Your task to perform on an android device: Turn off the flashlight Image 0: 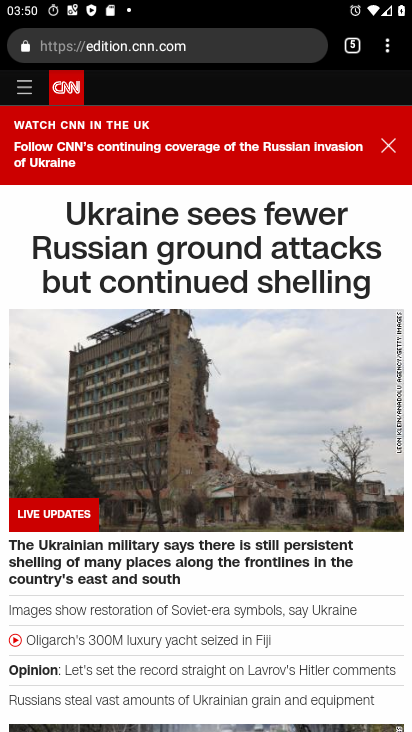
Step 0: press home button
Your task to perform on an android device: Turn off the flashlight Image 1: 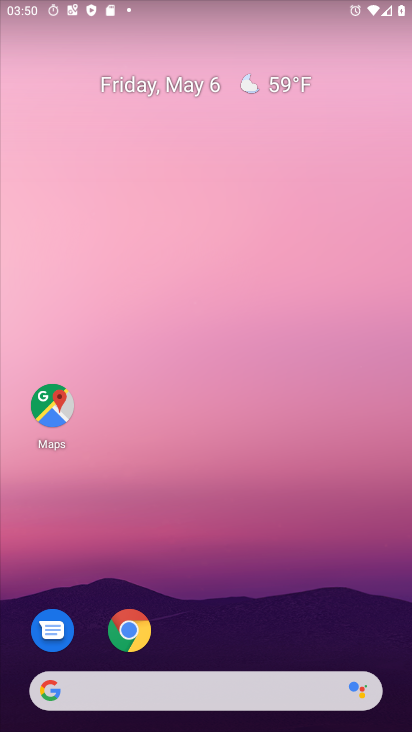
Step 1: drag from (207, 642) to (174, 152)
Your task to perform on an android device: Turn off the flashlight Image 2: 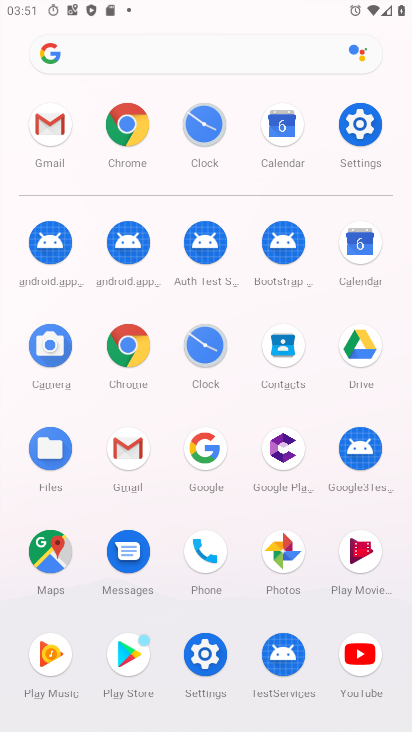
Step 2: click (358, 109)
Your task to perform on an android device: Turn off the flashlight Image 3: 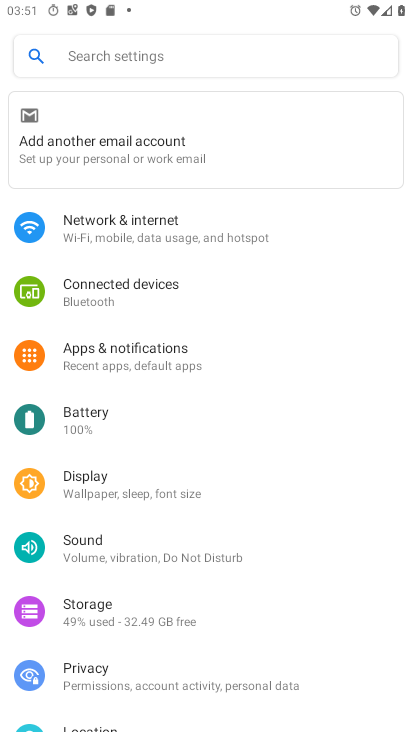
Step 3: click (127, 490)
Your task to perform on an android device: Turn off the flashlight Image 4: 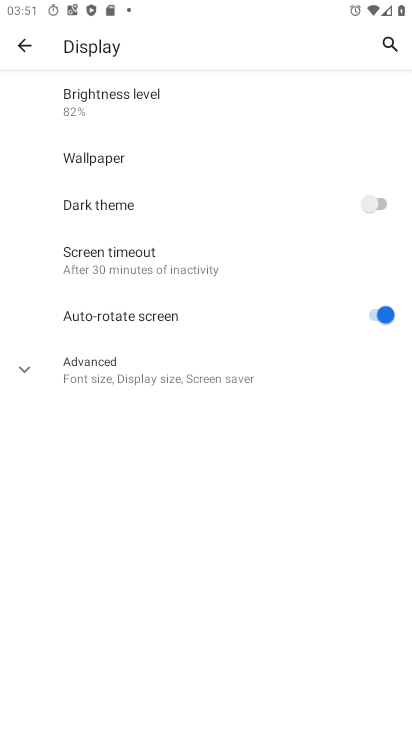
Step 4: task complete